Your task to perform on an android device: Go to eBay Image 0: 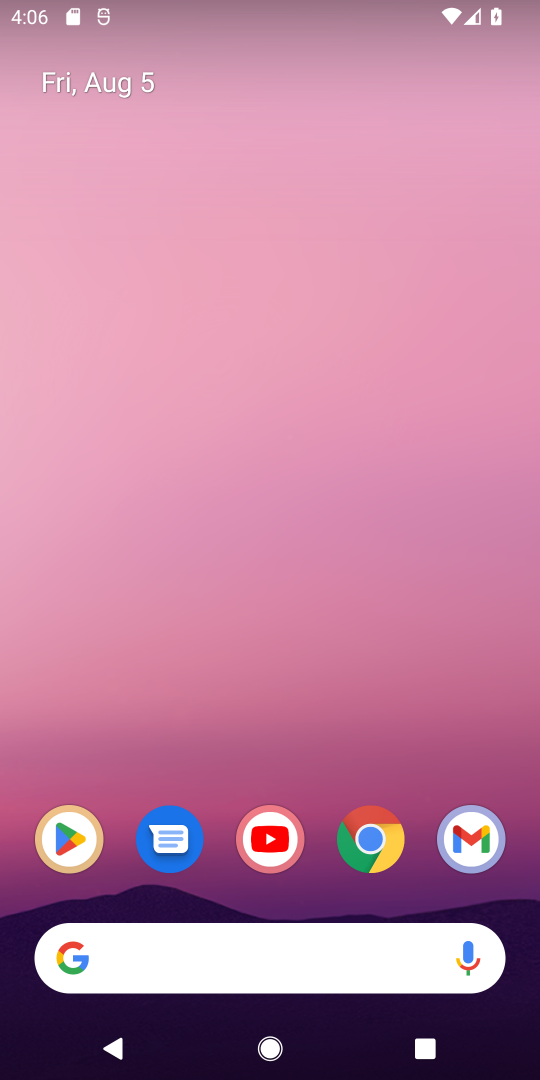
Step 0: click (351, 836)
Your task to perform on an android device: Go to eBay Image 1: 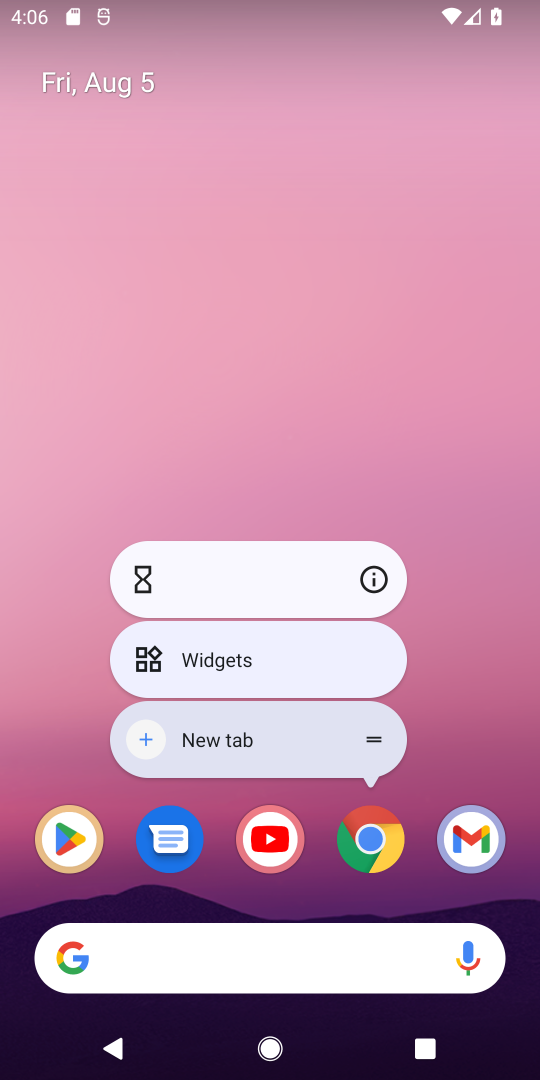
Step 1: click (360, 834)
Your task to perform on an android device: Go to eBay Image 2: 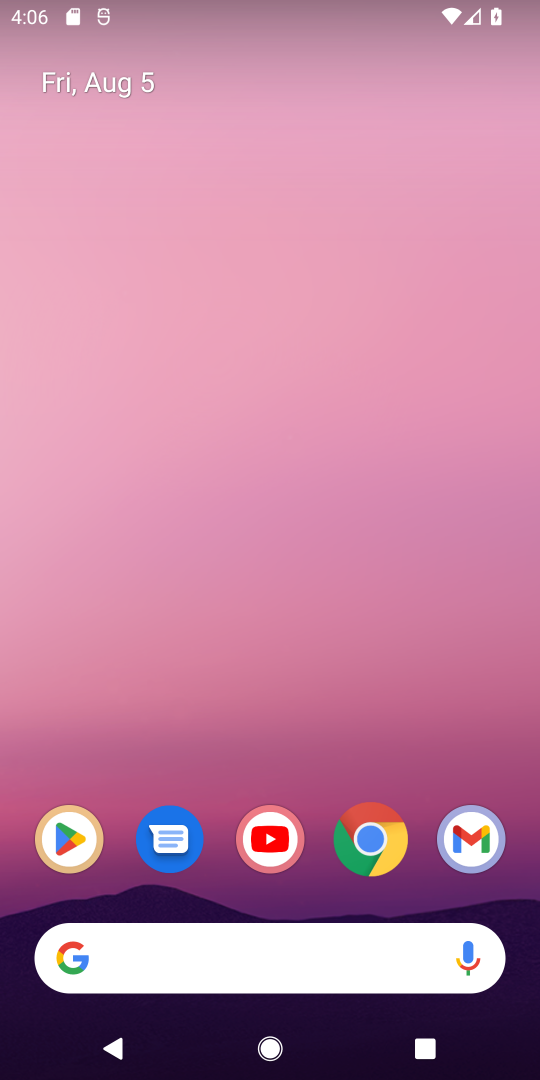
Step 2: click (371, 873)
Your task to perform on an android device: Go to eBay Image 3: 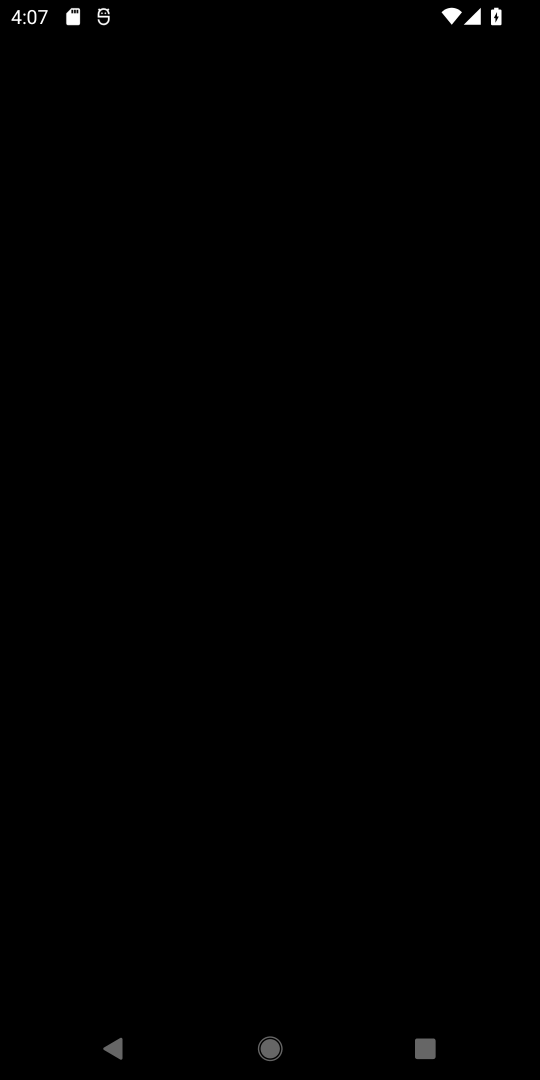
Step 3: task complete